Your task to perform on an android device: Turn off the flashlight Image 0: 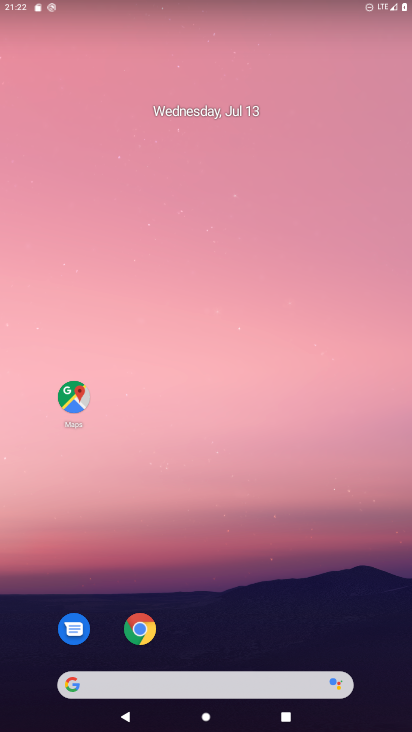
Step 0: drag from (326, 532) to (327, 113)
Your task to perform on an android device: Turn off the flashlight Image 1: 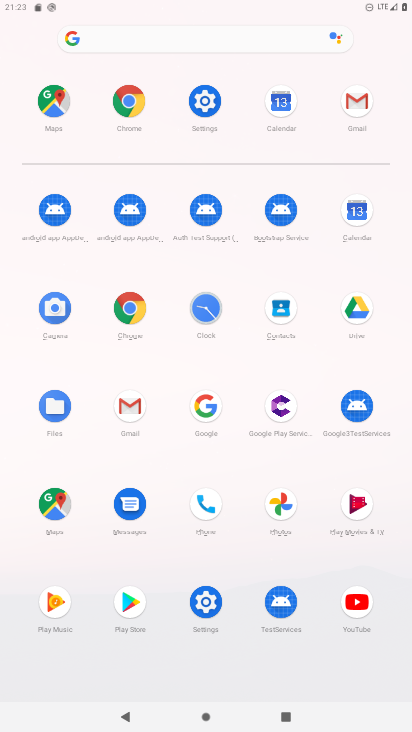
Step 1: task complete